Your task to perform on an android device: Open battery settings Image 0: 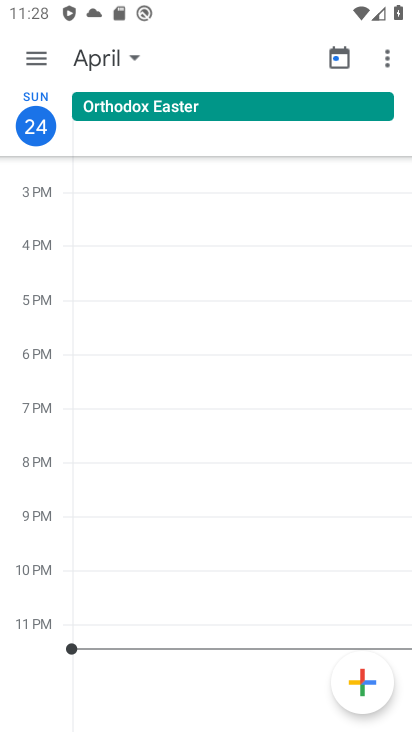
Step 0: click (237, 572)
Your task to perform on an android device: Open battery settings Image 1: 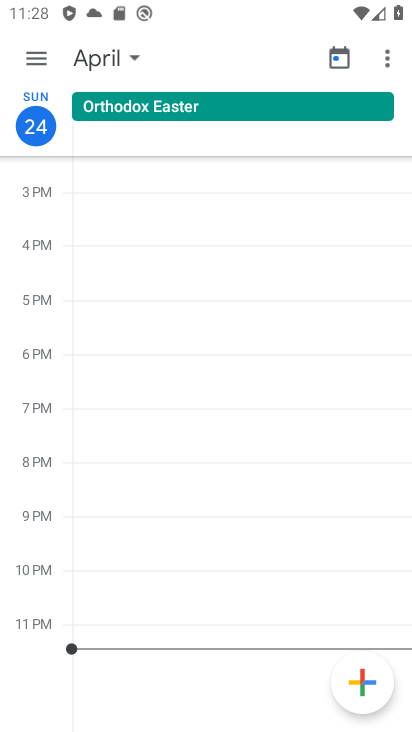
Step 1: press home button
Your task to perform on an android device: Open battery settings Image 2: 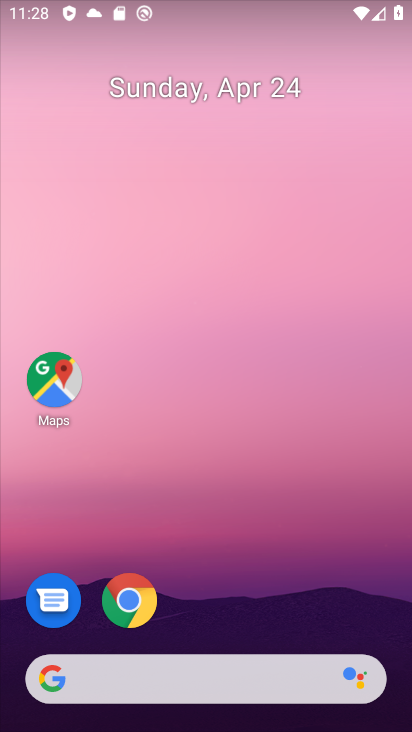
Step 2: drag from (238, 546) to (208, 84)
Your task to perform on an android device: Open battery settings Image 3: 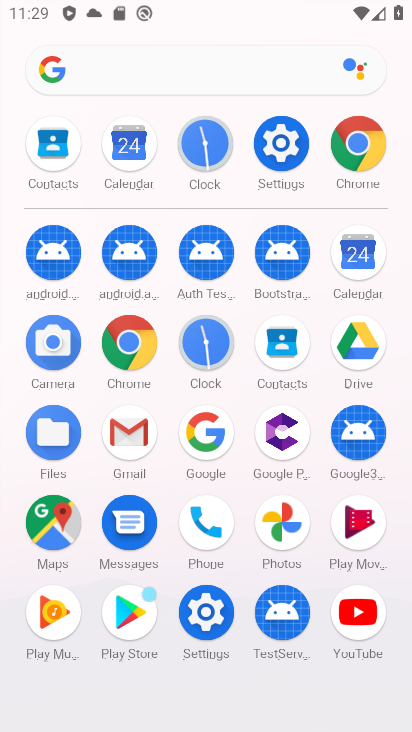
Step 3: click (278, 144)
Your task to perform on an android device: Open battery settings Image 4: 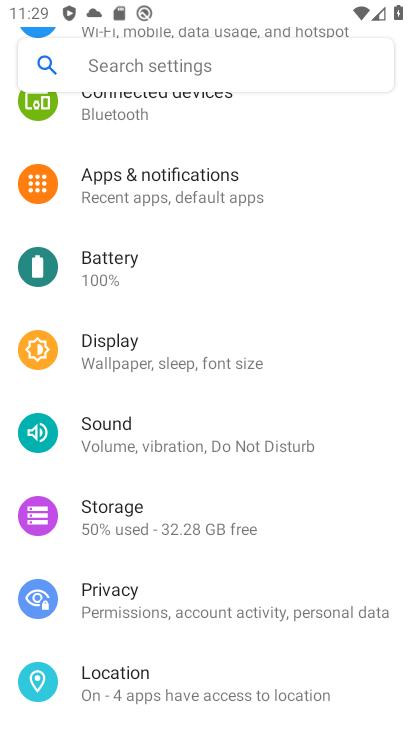
Step 4: click (105, 264)
Your task to perform on an android device: Open battery settings Image 5: 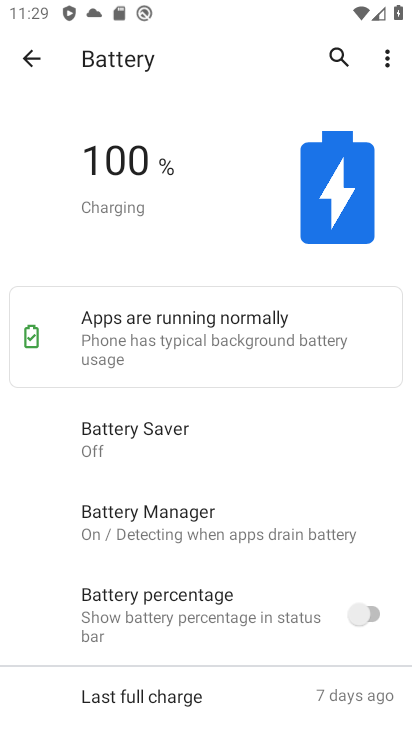
Step 5: task complete